Your task to perform on an android device: Clear all items from cart on costco.com. Search for sony triple a on costco.com, select the first entry, and add it to the cart. Image 0: 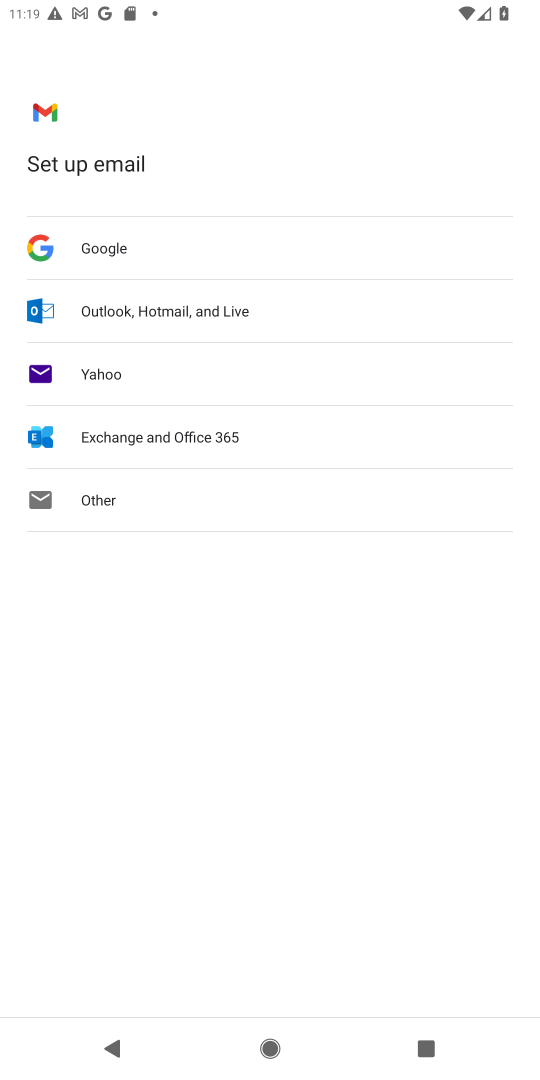
Step 0: press home button
Your task to perform on an android device: Clear all items from cart on costco.com. Search for sony triple a on costco.com, select the first entry, and add it to the cart. Image 1: 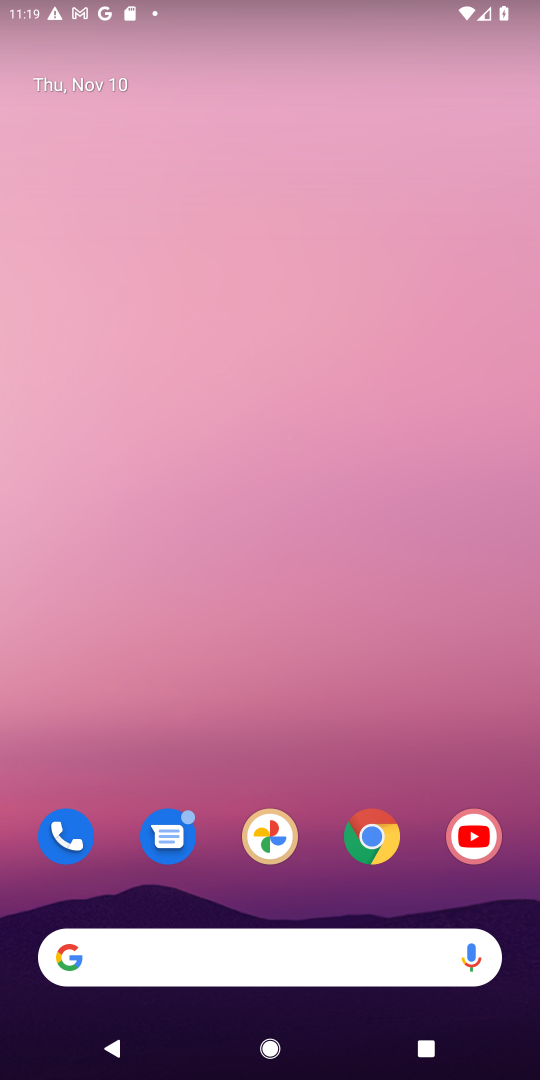
Step 1: click (221, 956)
Your task to perform on an android device: Clear all items from cart on costco.com. Search for sony triple a on costco.com, select the first entry, and add it to the cart. Image 2: 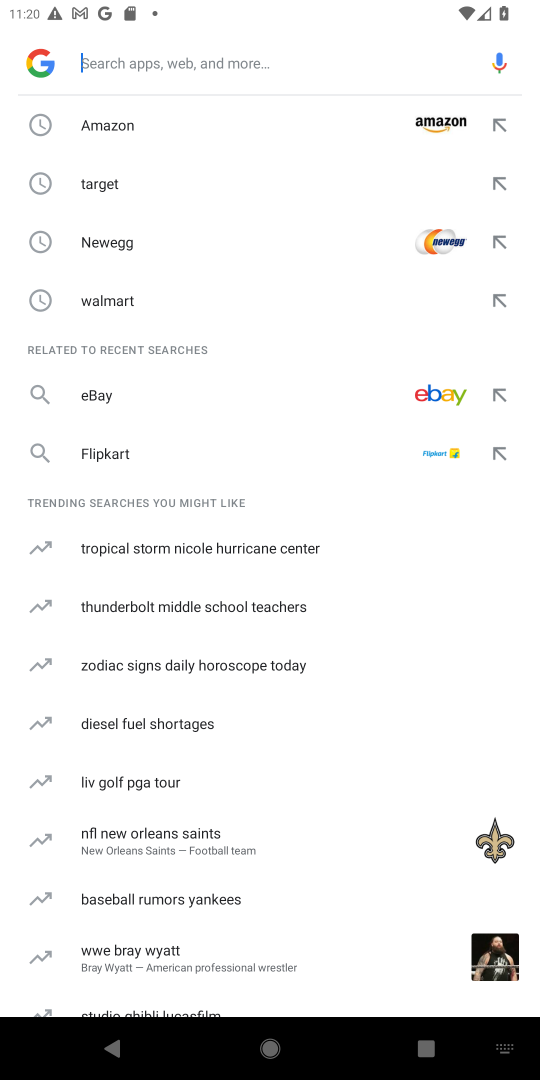
Step 2: type "costco.com"
Your task to perform on an android device: Clear all items from cart on costco.com. Search for sony triple a on costco.com, select the first entry, and add it to the cart. Image 3: 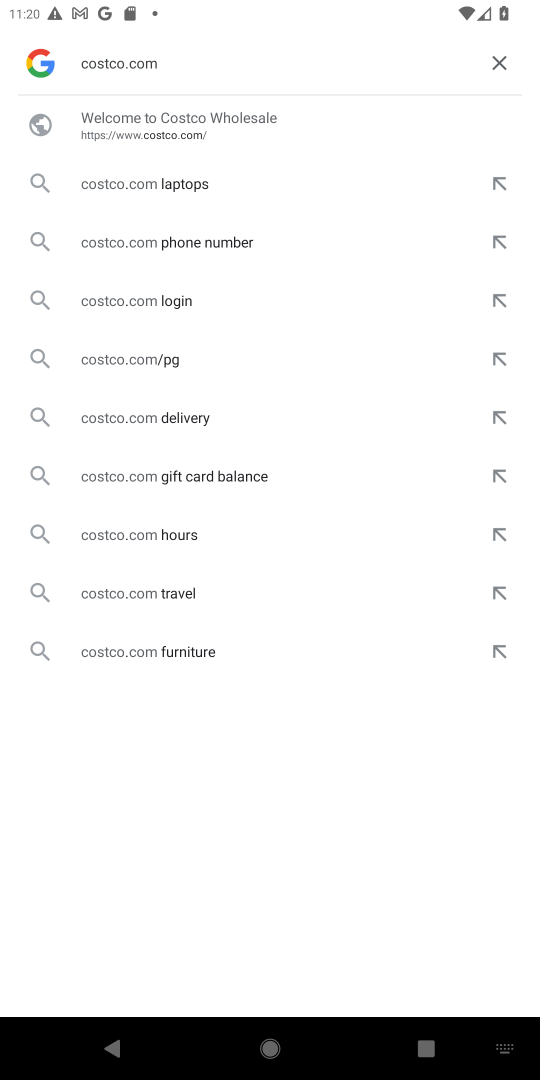
Step 3: click (168, 127)
Your task to perform on an android device: Clear all items from cart on costco.com. Search for sony triple a on costco.com, select the first entry, and add it to the cart. Image 4: 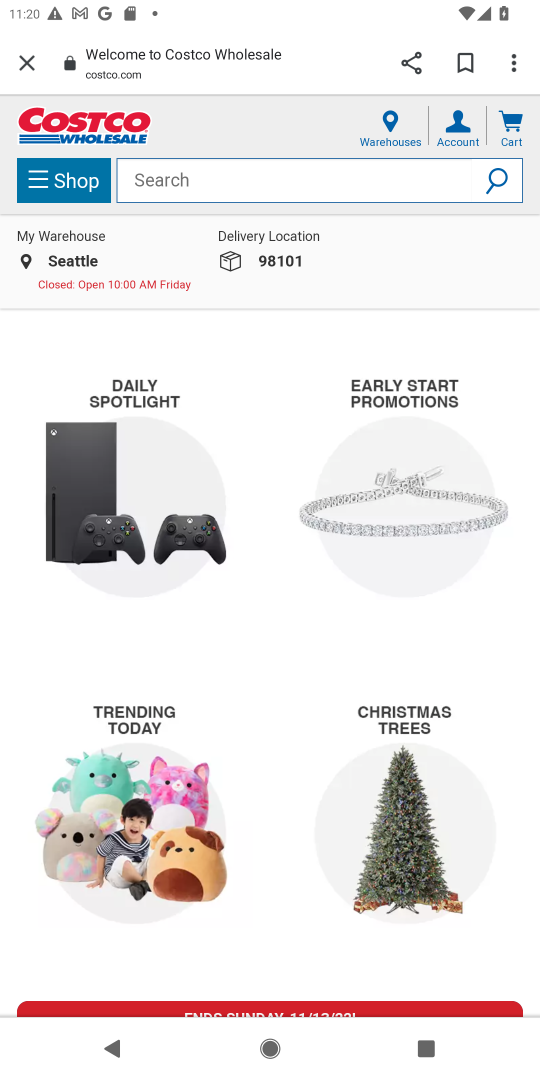
Step 4: click (190, 167)
Your task to perform on an android device: Clear all items from cart on costco.com. Search for sony triple a on costco.com, select the first entry, and add it to the cart. Image 5: 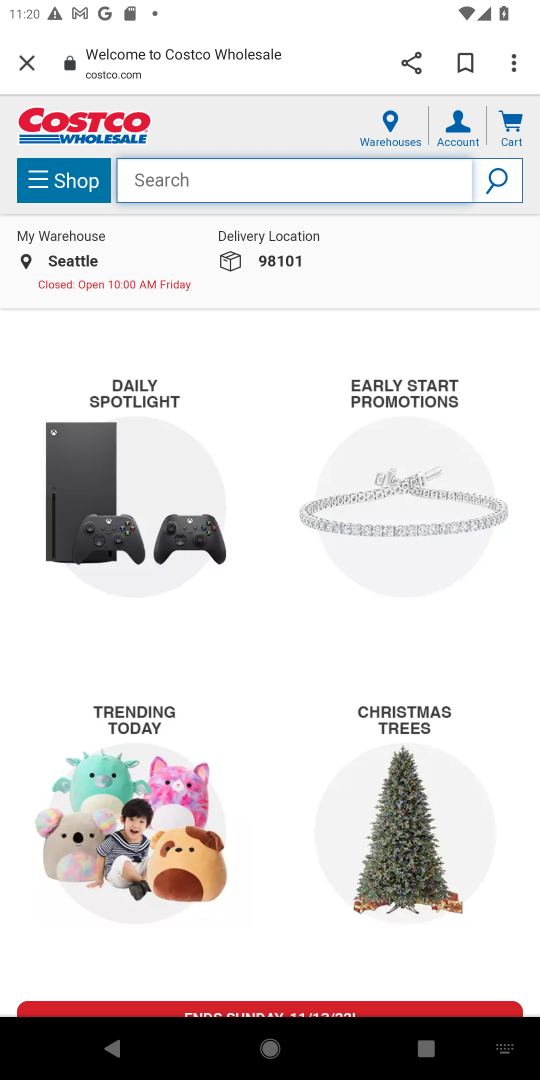
Step 5: type " sony triple a"
Your task to perform on an android device: Clear all items from cart on costco.com. Search for sony triple a on costco.com, select the first entry, and add it to the cart. Image 6: 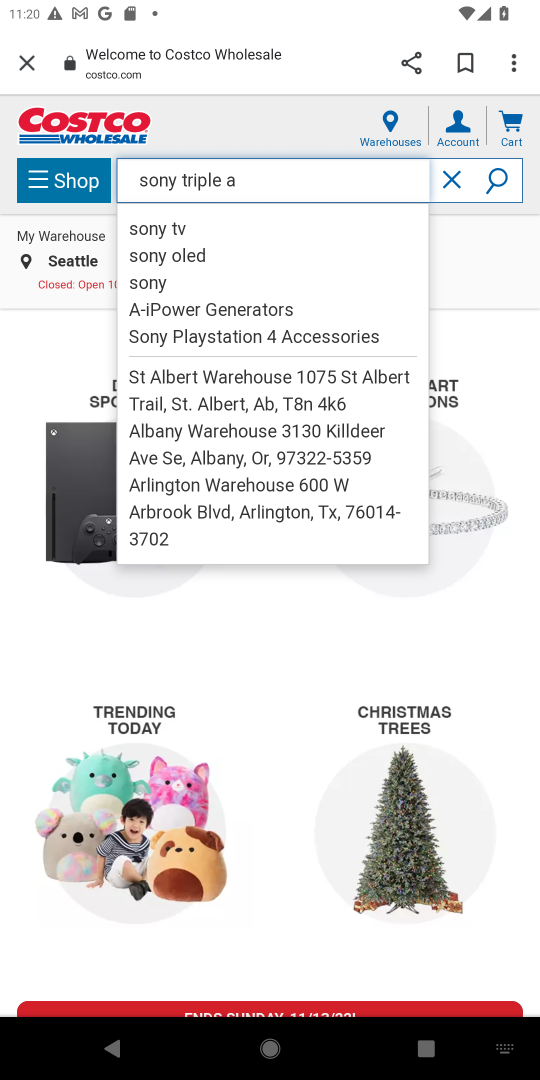
Step 6: click (492, 181)
Your task to perform on an android device: Clear all items from cart on costco.com. Search for sony triple a on costco.com, select the first entry, and add it to the cart. Image 7: 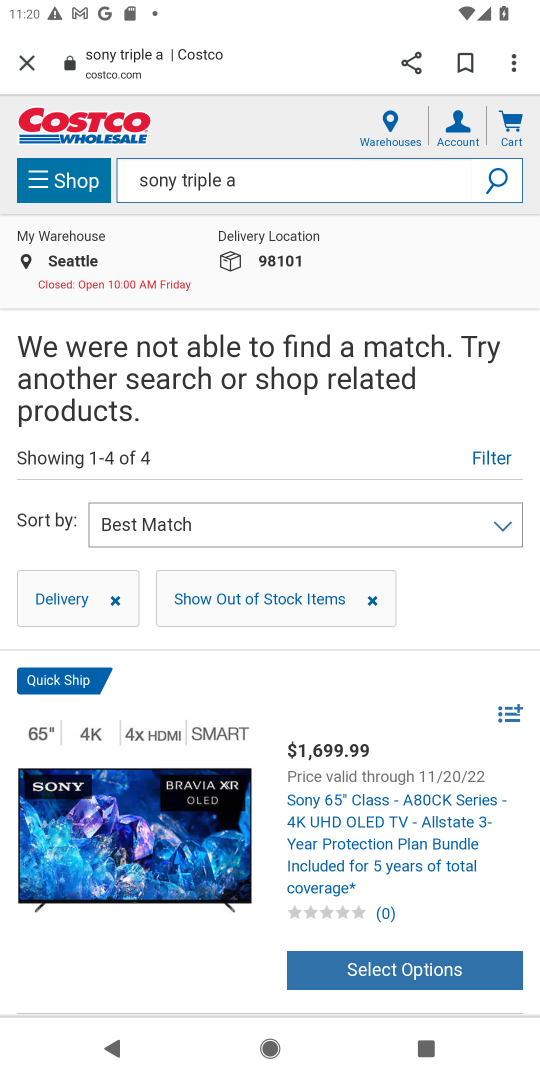
Step 7: drag from (245, 906) to (246, 718)
Your task to perform on an android device: Clear all items from cart on costco.com. Search for sony triple a on costco.com, select the first entry, and add it to the cart. Image 8: 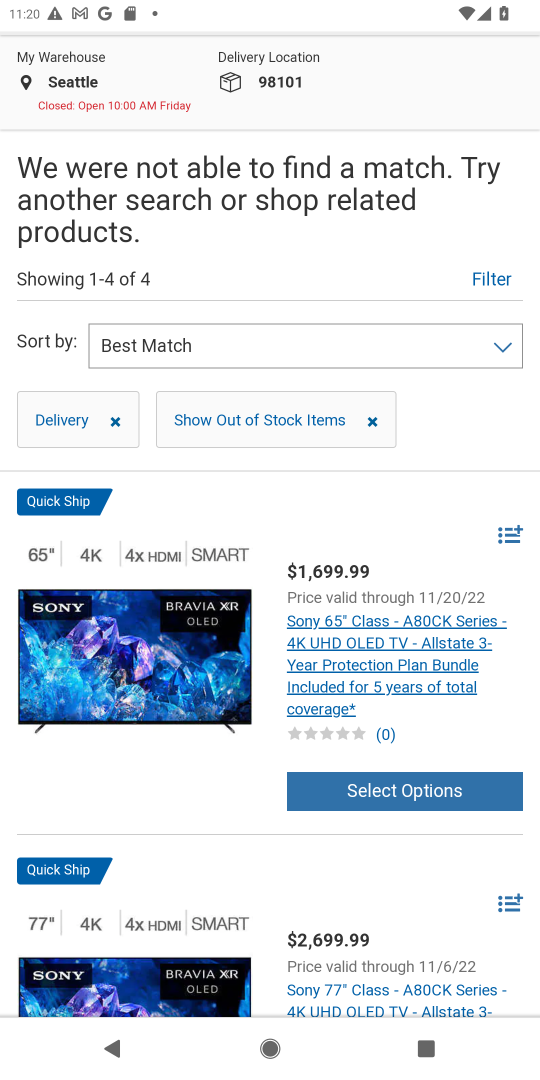
Step 8: click (378, 778)
Your task to perform on an android device: Clear all items from cart on costco.com. Search for sony triple a on costco.com, select the first entry, and add it to the cart. Image 9: 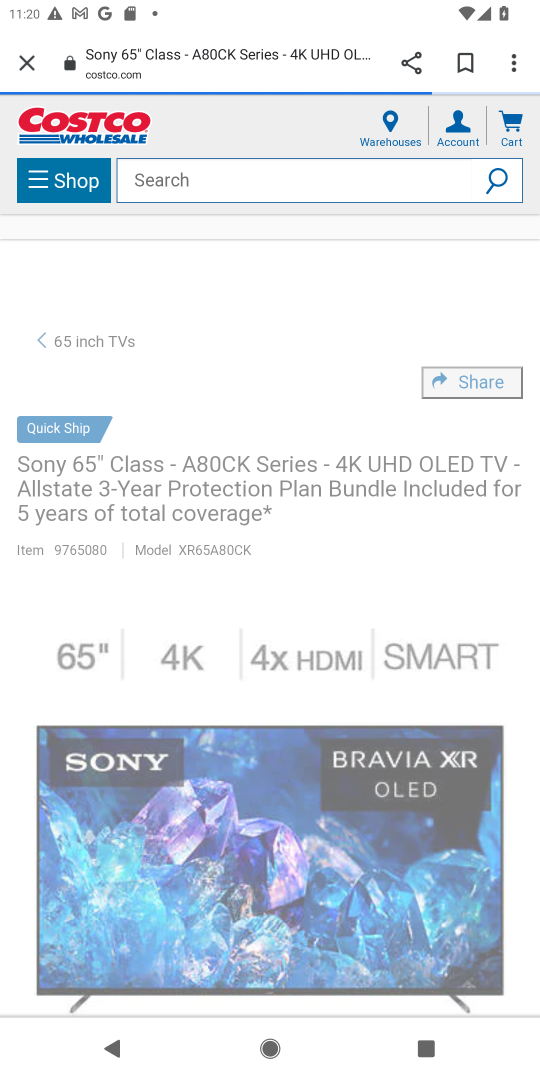
Step 9: drag from (316, 775) to (291, 576)
Your task to perform on an android device: Clear all items from cart on costco.com. Search for sony triple a on costco.com, select the first entry, and add it to the cart. Image 10: 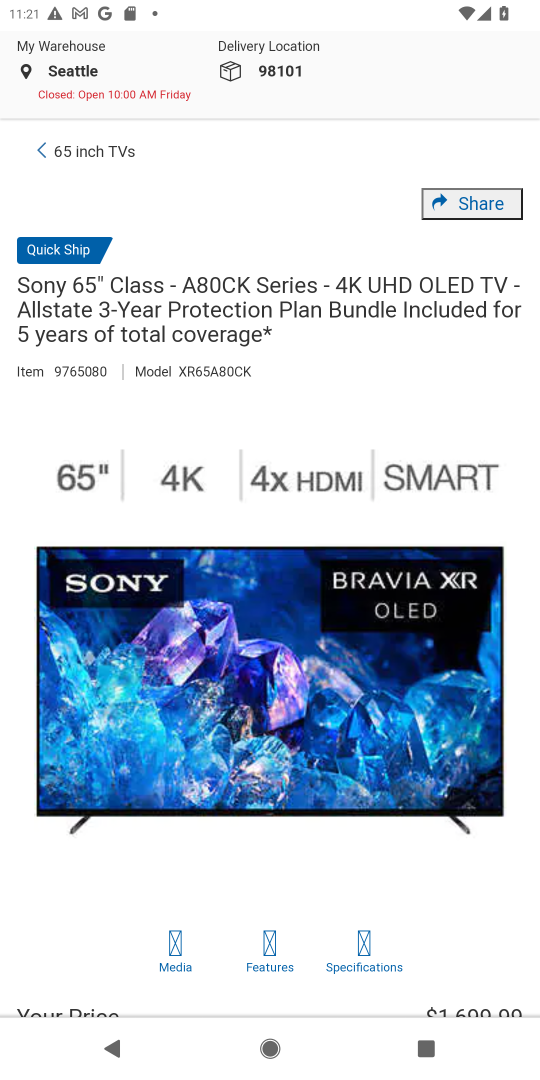
Step 10: drag from (311, 878) to (311, 658)
Your task to perform on an android device: Clear all items from cart on costco.com. Search for sony triple a on costco.com, select the first entry, and add it to the cart. Image 11: 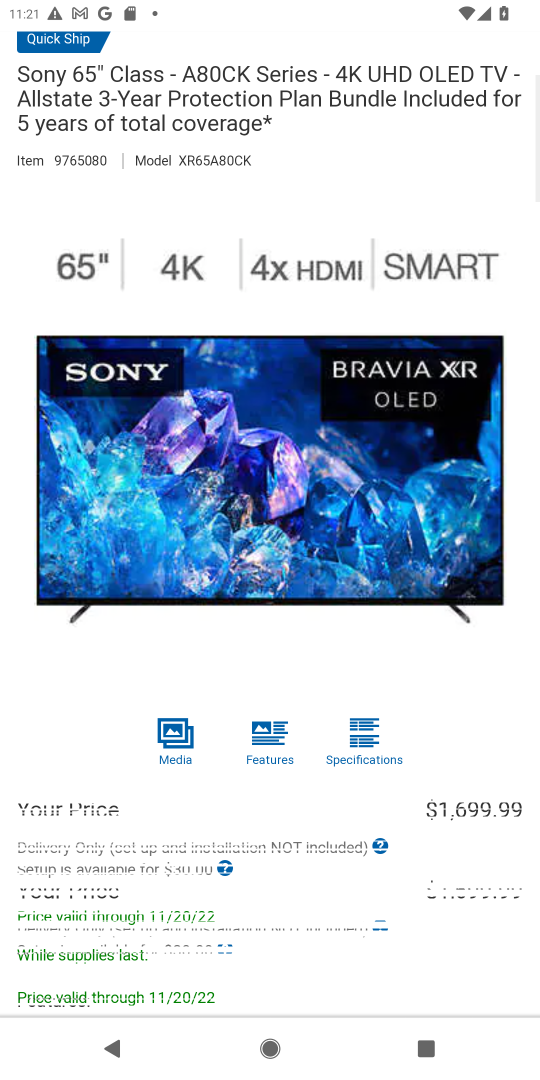
Step 11: drag from (261, 876) to (265, 682)
Your task to perform on an android device: Clear all items from cart on costco.com. Search for sony triple a on costco.com, select the first entry, and add it to the cart. Image 12: 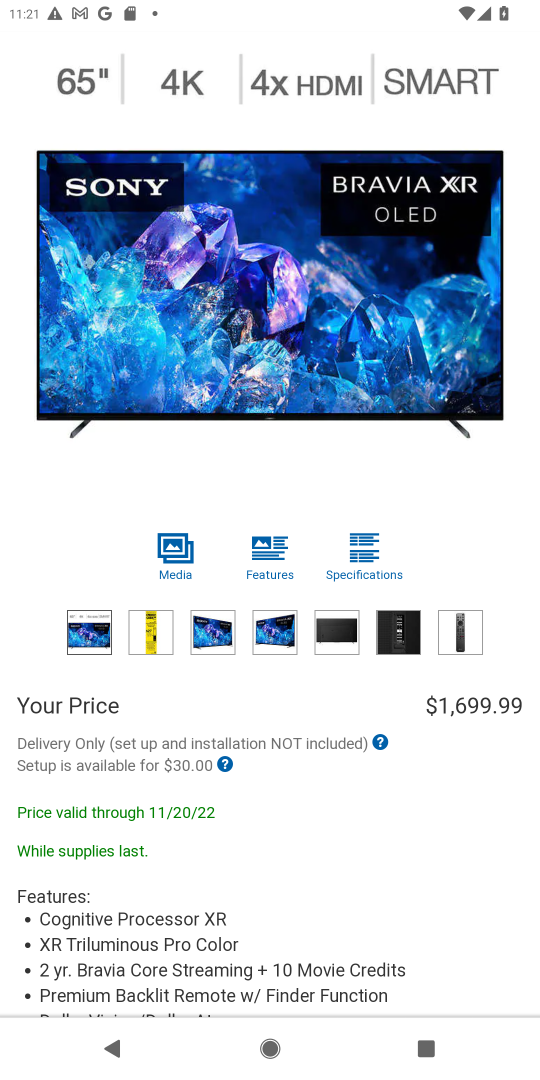
Step 12: drag from (292, 845) to (284, 632)
Your task to perform on an android device: Clear all items from cart on costco.com. Search for sony triple a on costco.com, select the first entry, and add it to the cart. Image 13: 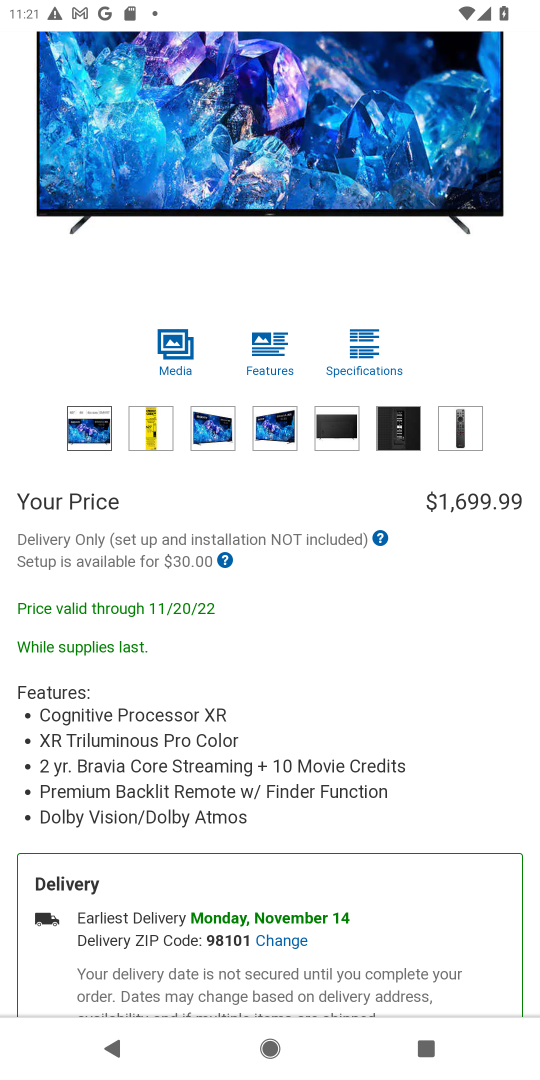
Step 13: drag from (321, 852) to (326, 650)
Your task to perform on an android device: Clear all items from cart on costco.com. Search for sony triple a on costco.com, select the first entry, and add it to the cart. Image 14: 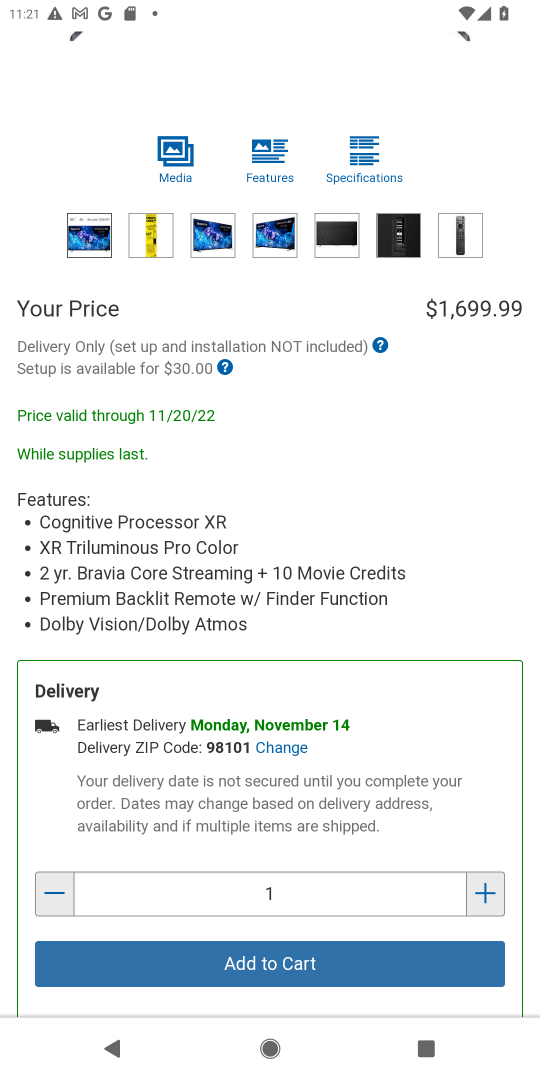
Step 14: click (257, 963)
Your task to perform on an android device: Clear all items from cart on costco.com. Search for sony triple a on costco.com, select the first entry, and add it to the cart. Image 15: 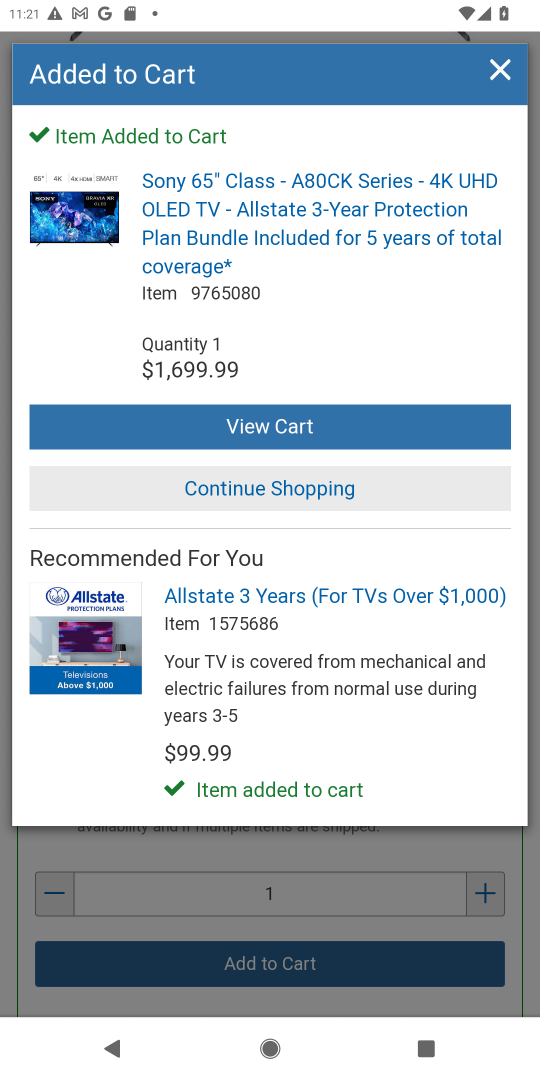
Step 15: task complete